Your task to perform on an android device: change the clock style Image 0: 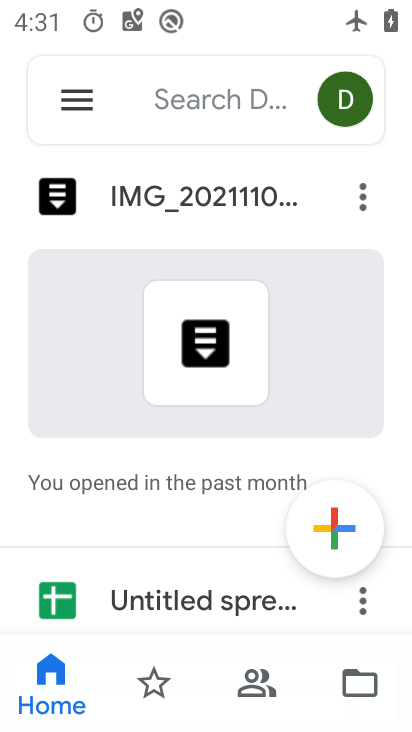
Step 0: press back button
Your task to perform on an android device: change the clock style Image 1: 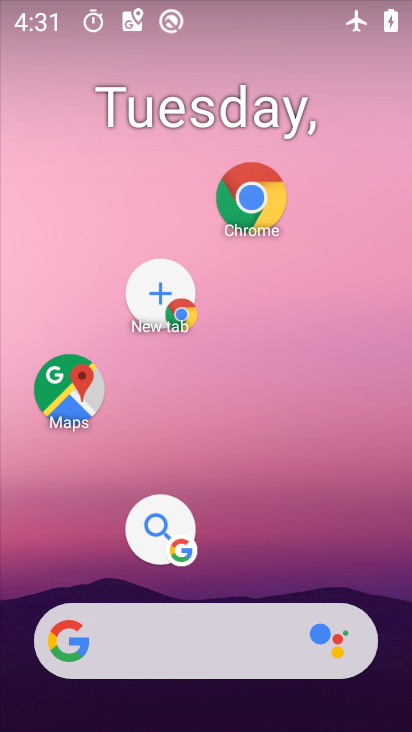
Step 1: drag from (268, 592) to (303, 353)
Your task to perform on an android device: change the clock style Image 2: 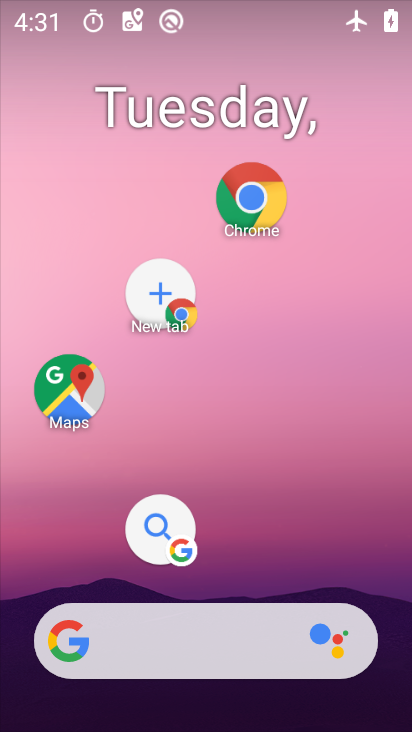
Step 2: drag from (220, 593) to (267, 371)
Your task to perform on an android device: change the clock style Image 3: 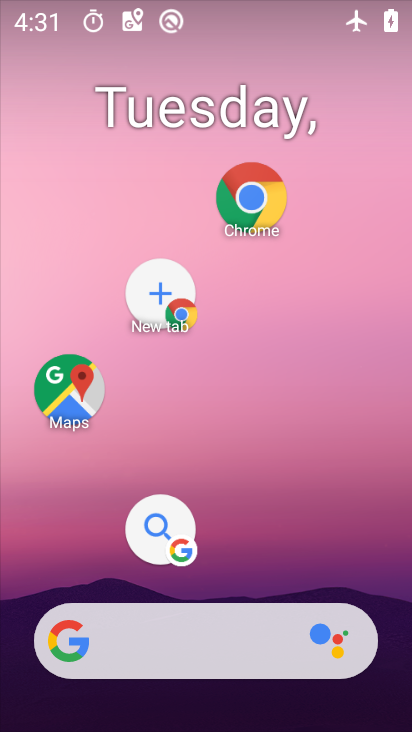
Step 3: drag from (222, 603) to (299, 292)
Your task to perform on an android device: change the clock style Image 4: 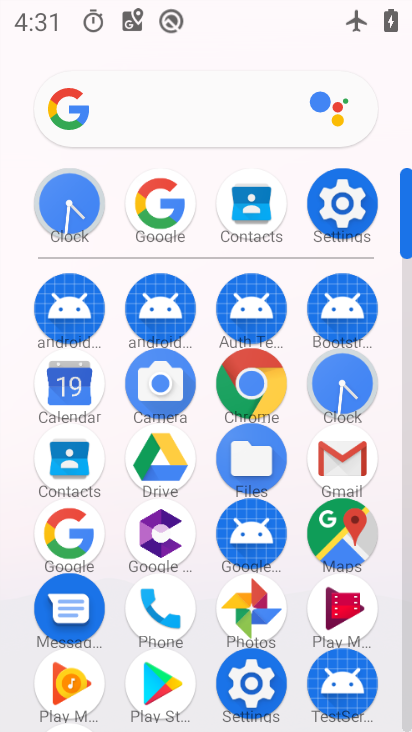
Step 4: click (334, 378)
Your task to perform on an android device: change the clock style Image 5: 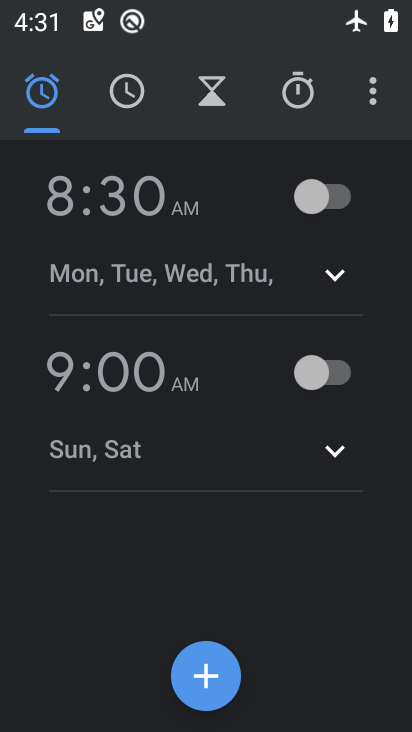
Step 5: click (376, 98)
Your task to perform on an android device: change the clock style Image 6: 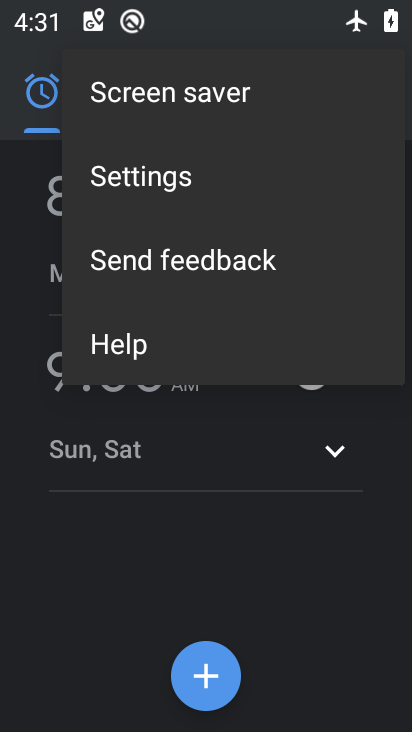
Step 6: click (96, 181)
Your task to perform on an android device: change the clock style Image 7: 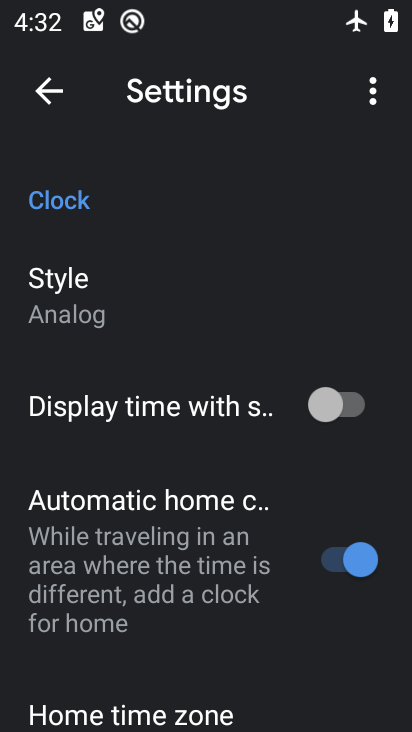
Step 7: click (57, 301)
Your task to perform on an android device: change the clock style Image 8: 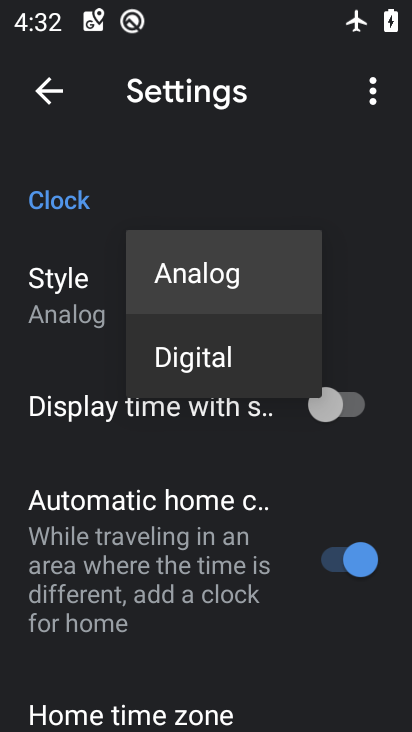
Step 8: click (231, 365)
Your task to perform on an android device: change the clock style Image 9: 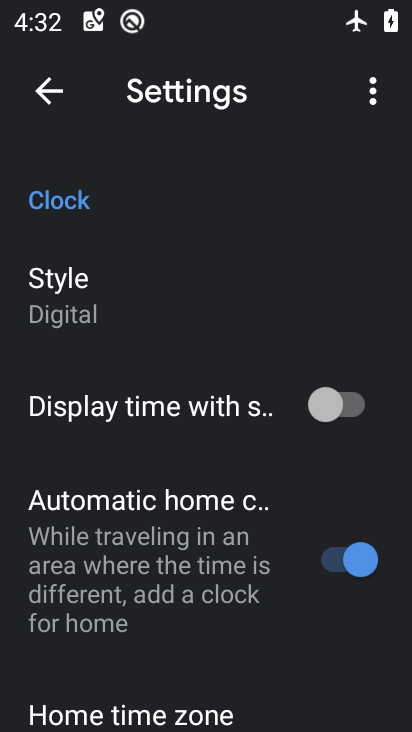
Step 9: task complete